Your task to perform on an android device: search for starred emails in the gmail app Image 0: 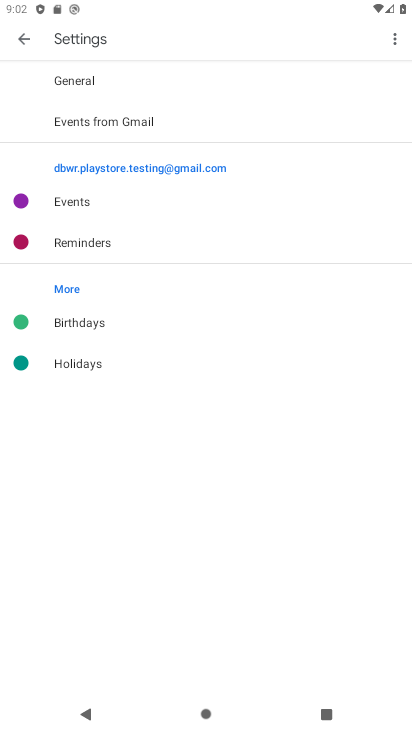
Step 0: press home button
Your task to perform on an android device: search for starred emails in the gmail app Image 1: 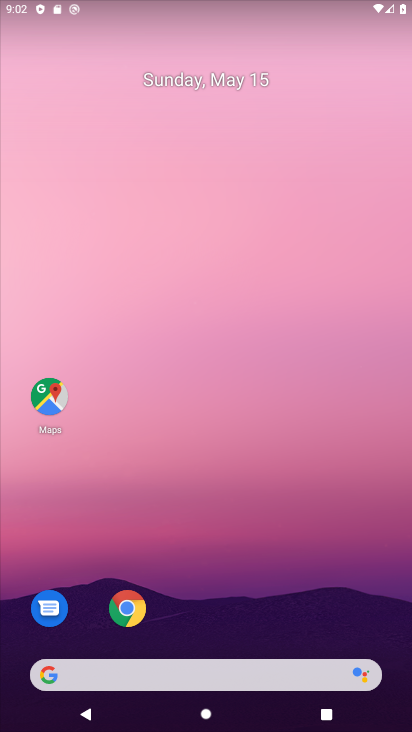
Step 1: drag from (289, 524) to (252, 137)
Your task to perform on an android device: search for starred emails in the gmail app Image 2: 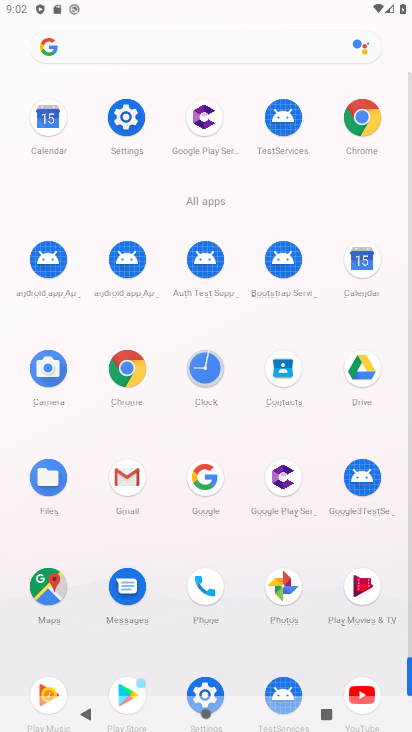
Step 2: click (128, 483)
Your task to perform on an android device: search for starred emails in the gmail app Image 3: 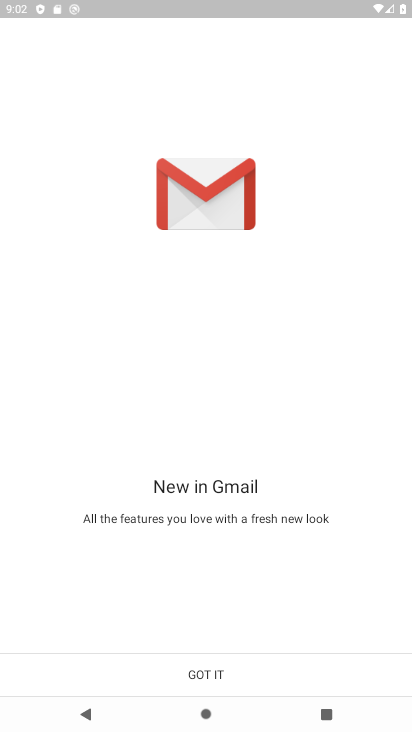
Step 3: click (192, 669)
Your task to perform on an android device: search for starred emails in the gmail app Image 4: 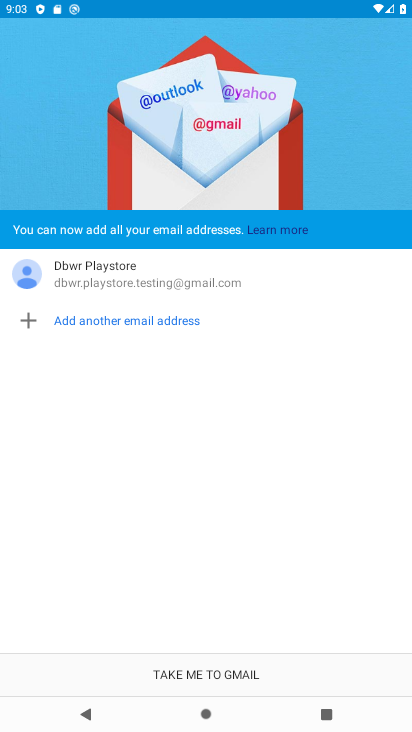
Step 4: click (192, 672)
Your task to perform on an android device: search for starred emails in the gmail app Image 5: 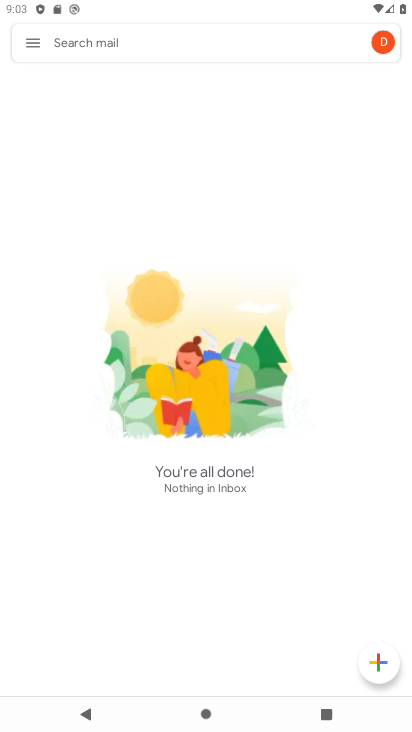
Step 5: task complete